Your task to perform on an android device: Search for sushi restaurants on Maps Image 0: 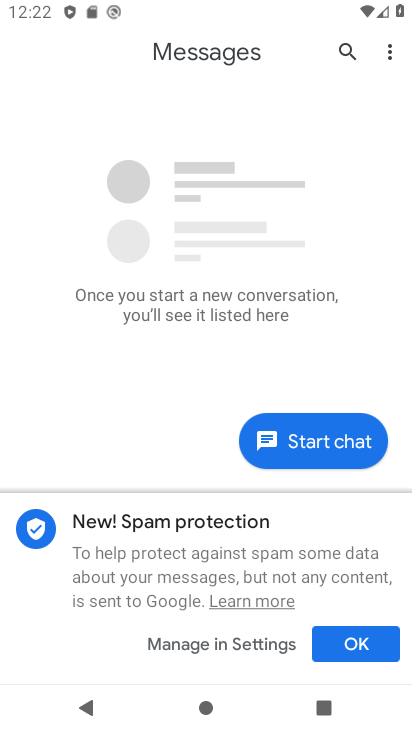
Step 0: press home button
Your task to perform on an android device: Search for sushi restaurants on Maps Image 1: 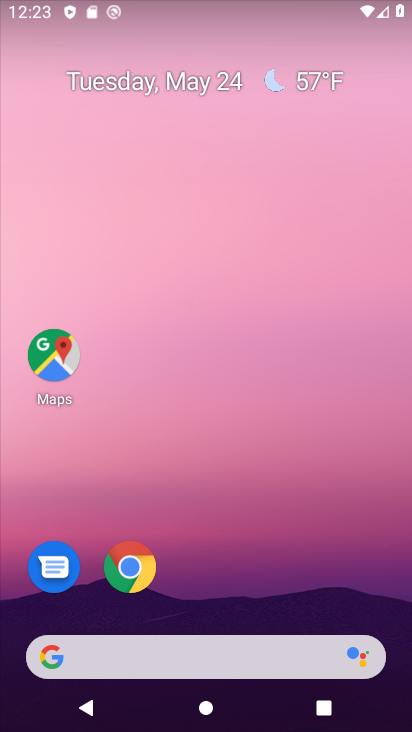
Step 1: click (48, 372)
Your task to perform on an android device: Search for sushi restaurants on Maps Image 2: 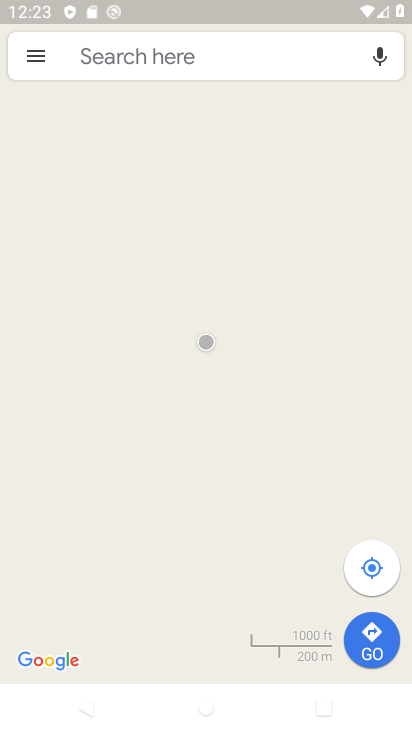
Step 2: click (244, 60)
Your task to perform on an android device: Search for sushi restaurants on Maps Image 3: 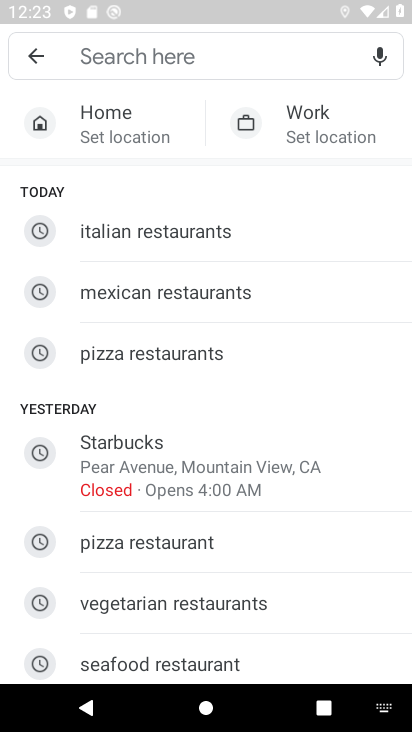
Step 3: type "sushi restaurants"
Your task to perform on an android device: Search for sushi restaurants on Maps Image 4: 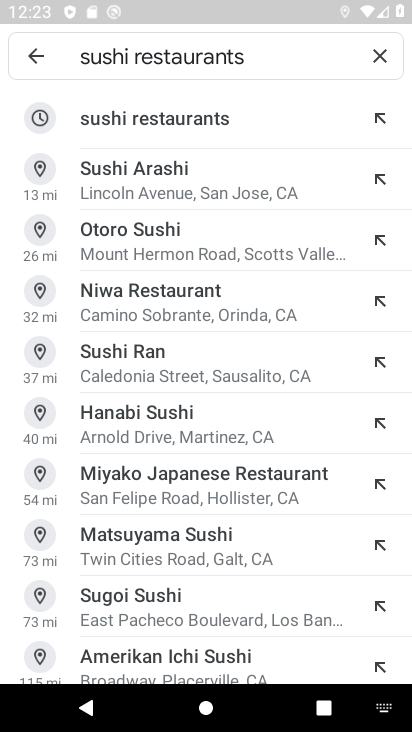
Step 4: click (162, 130)
Your task to perform on an android device: Search for sushi restaurants on Maps Image 5: 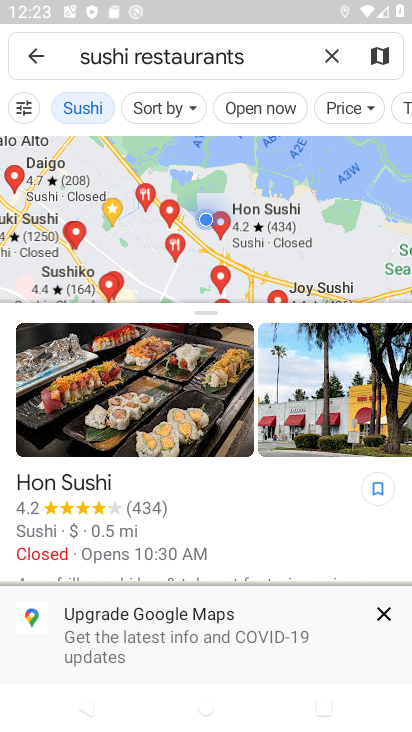
Step 5: task complete